Your task to perform on an android device: Open my contact list Image 0: 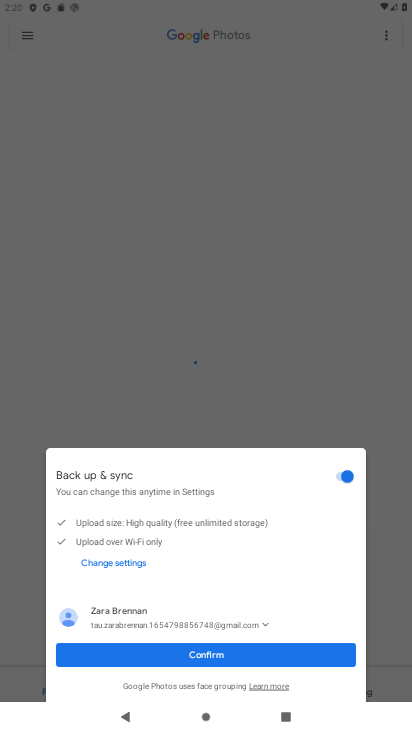
Step 0: press home button
Your task to perform on an android device: Open my contact list Image 1: 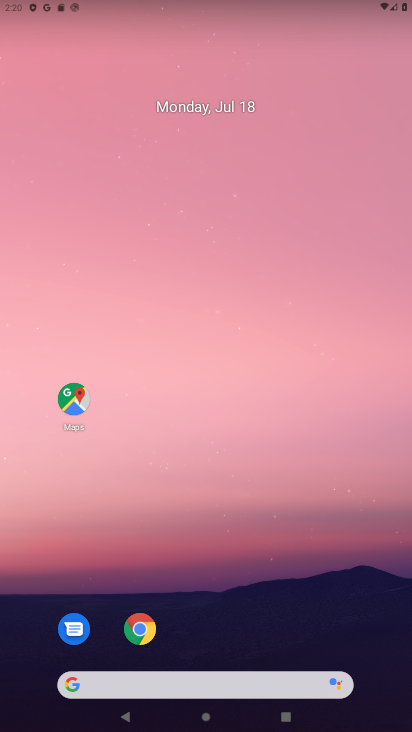
Step 1: drag from (243, 578) to (307, 11)
Your task to perform on an android device: Open my contact list Image 2: 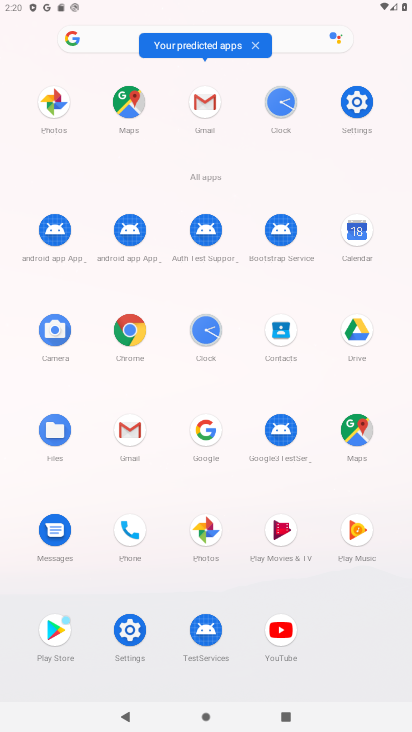
Step 2: click (279, 328)
Your task to perform on an android device: Open my contact list Image 3: 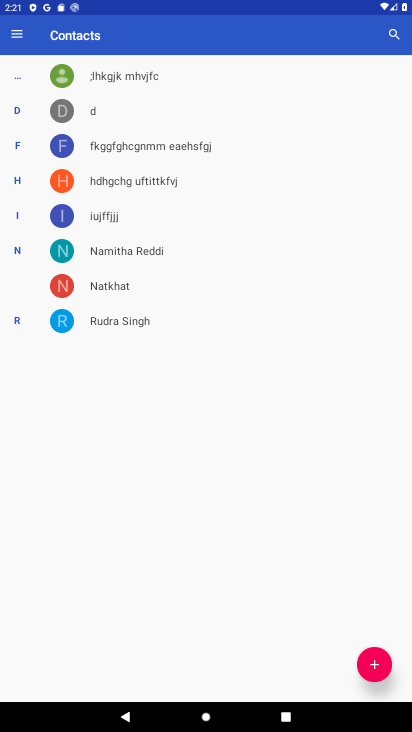
Step 3: task complete